Your task to perform on an android device: turn pop-ups off in chrome Image 0: 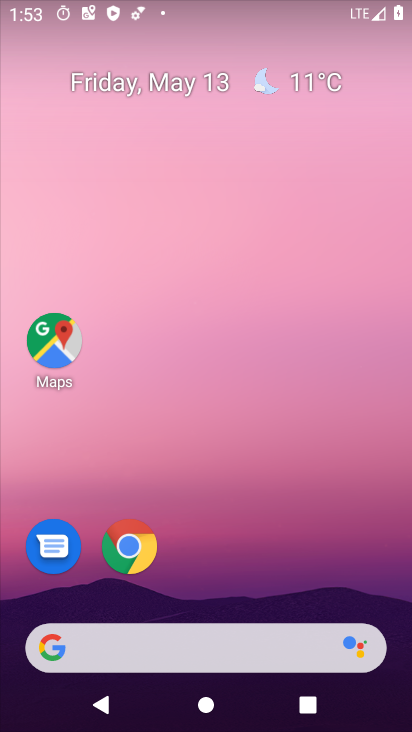
Step 0: drag from (225, 612) to (256, 235)
Your task to perform on an android device: turn pop-ups off in chrome Image 1: 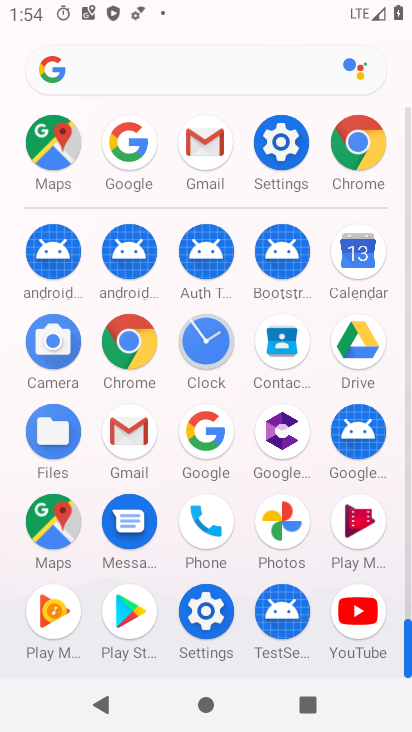
Step 1: click (351, 167)
Your task to perform on an android device: turn pop-ups off in chrome Image 2: 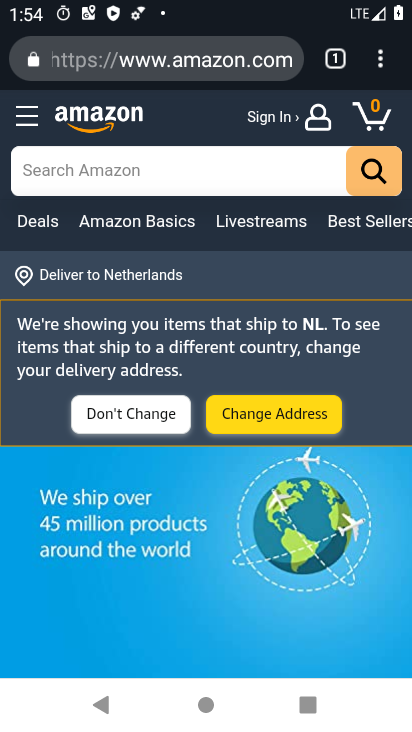
Step 2: click (384, 74)
Your task to perform on an android device: turn pop-ups off in chrome Image 3: 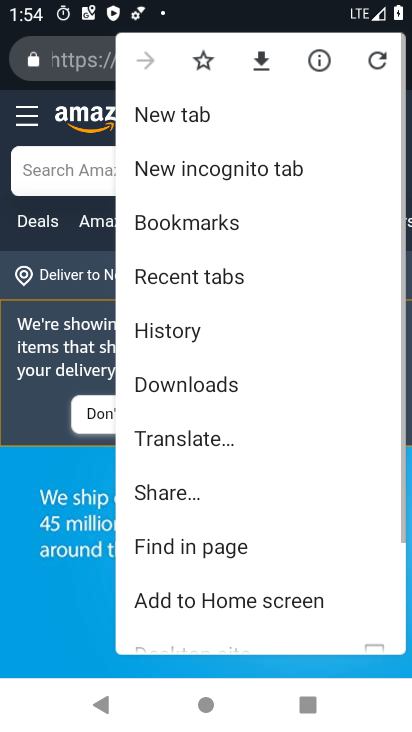
Step 3: drag from (268, 514) to (262, 250)
Your task to perform on an android device: turn pop-ups off in chrome Image 4: 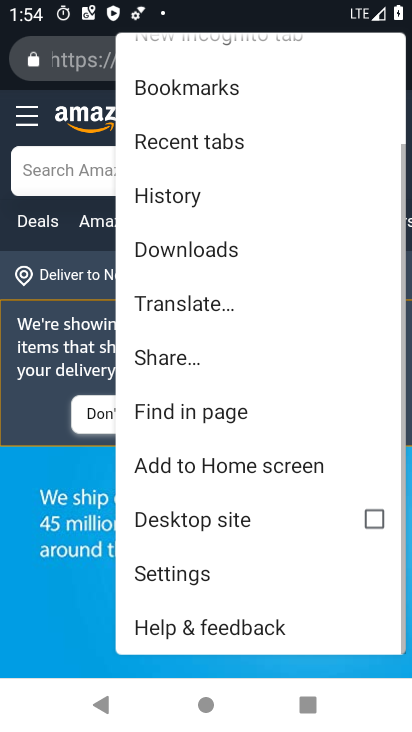
Step 4: drag from (255, 459) to (269, 341)
Your task to perform on an android device: turn pop-ups off in chrome Image 5: 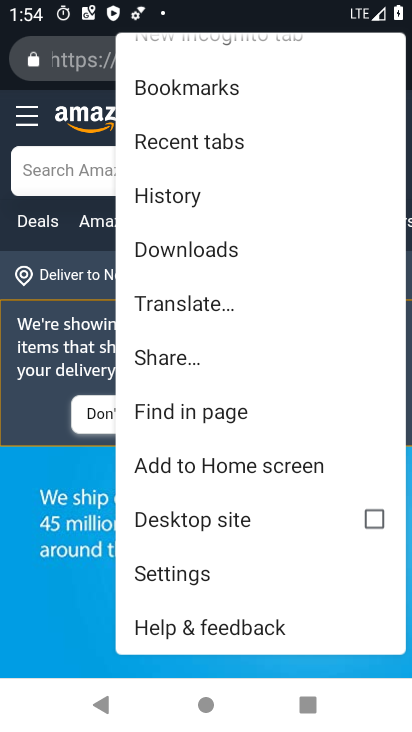
Step 5: click (238, 561)
Your task to perform on an android device: turn pop-ups off in chrome Image 6: 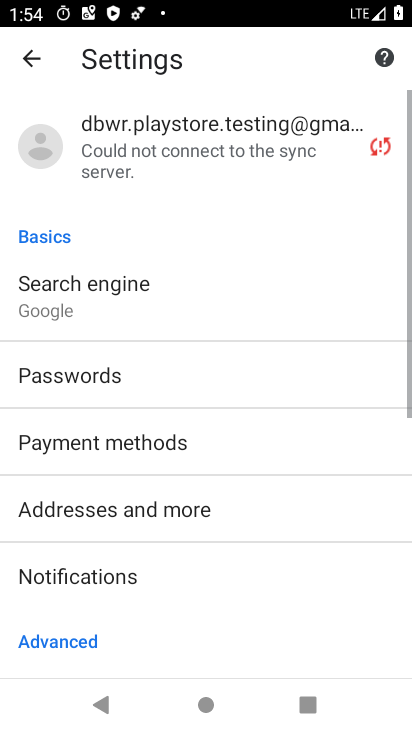
Step 6: drag from (246, 516) to (283, 289)
Your task to perform on an android device: turn pop-ups off in chrome Image 7: 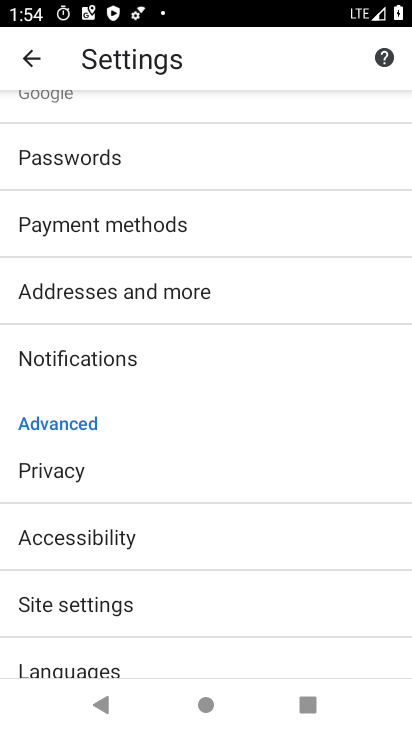
Step 7: drag from (221, 544) to (254, 307)
Your task to perform on an android device: turn pop-ups off in chrome Image 8: 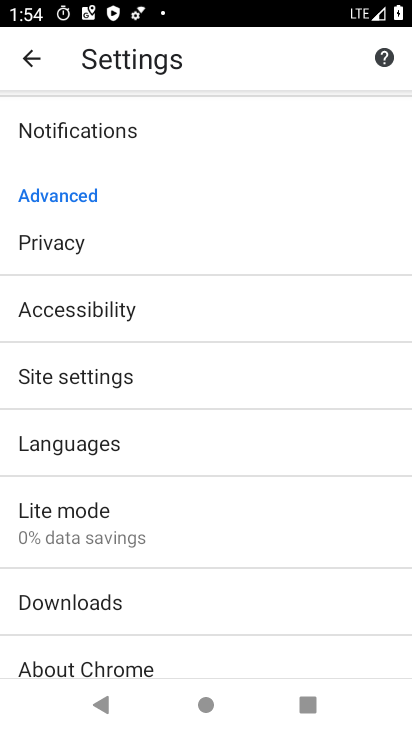
Step 8: drag from (169, 538) to (180, 397)
Your task to perform on an android device: turn pop-ups off in chrome Image 9: 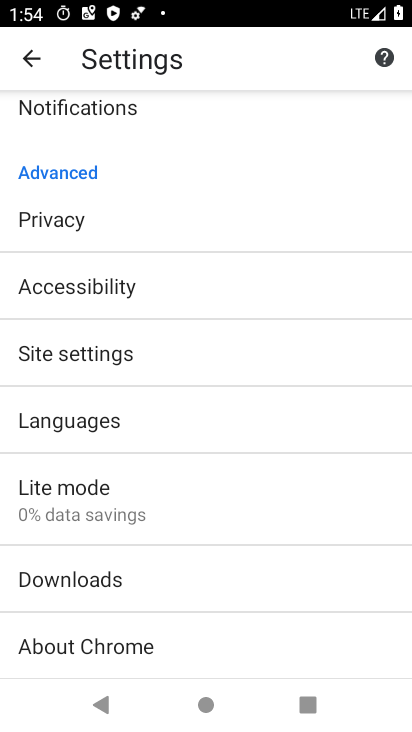
Step 9: click (132, 359)
Your task to perform on an android device: turn pop-ups off in chrome Image 10: 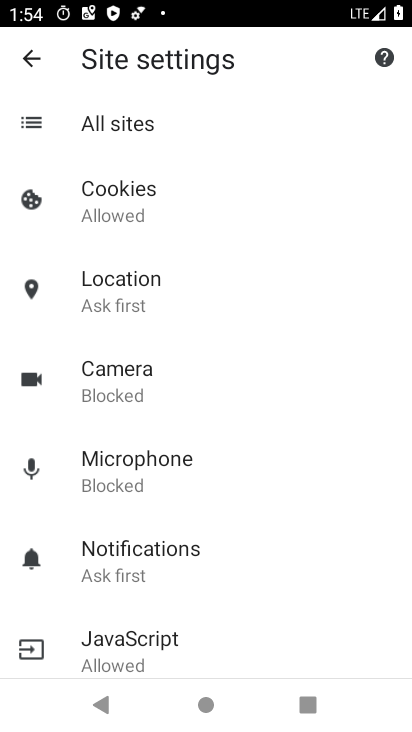
Step 10: drag from (167, 566) to (191, 310)
Your task to perform on an android device: turn pop-ups off in chrome Image 11: 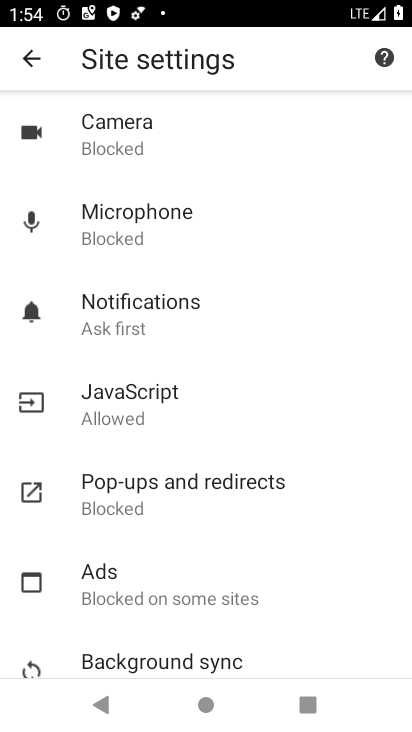
Step 11: click (193, 486)
Your task to perform on an android device: turn pop-ups off in chrome Image 12: 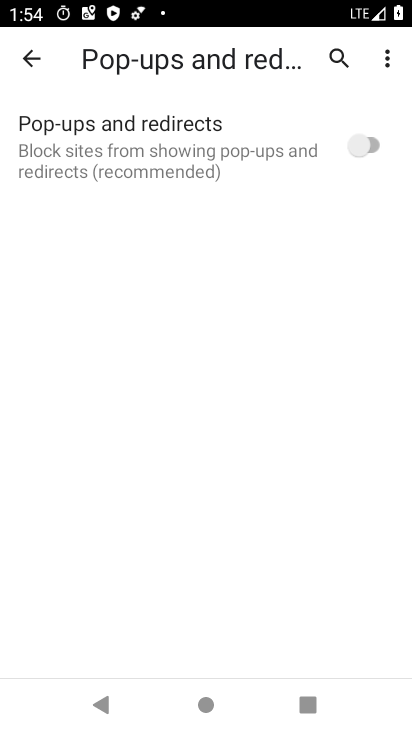
Step 12: click (370, 140)
Your task to perform on an android device: turn pop-ups off in chrome Image 13: 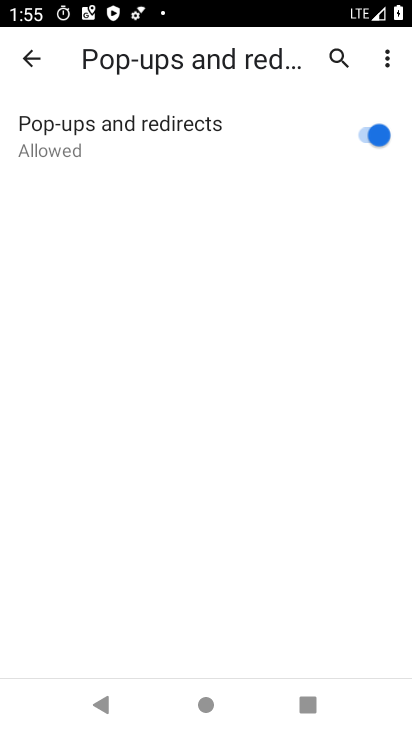
Step 13: task complete